Your task to perform on an android device: Find coffee shops on Maps Image 0: 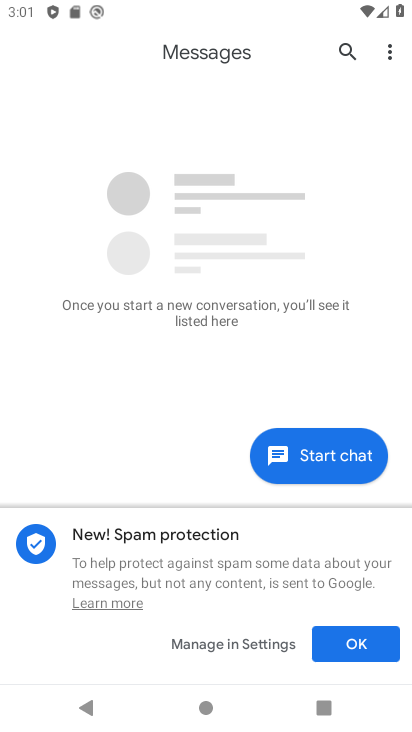
Step 0: press home button
Your task to perform on an android device: Find coffee shops on Maps Image 1: 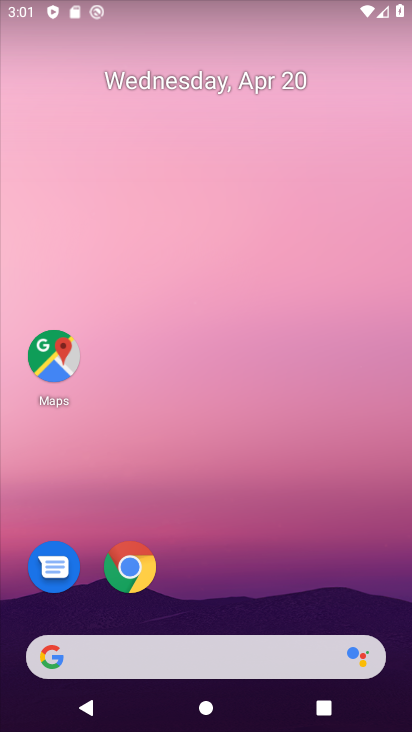
Step 1: click (42, 355)
Your task to perform on an android device: Find coffee shops on Maps Image 2: 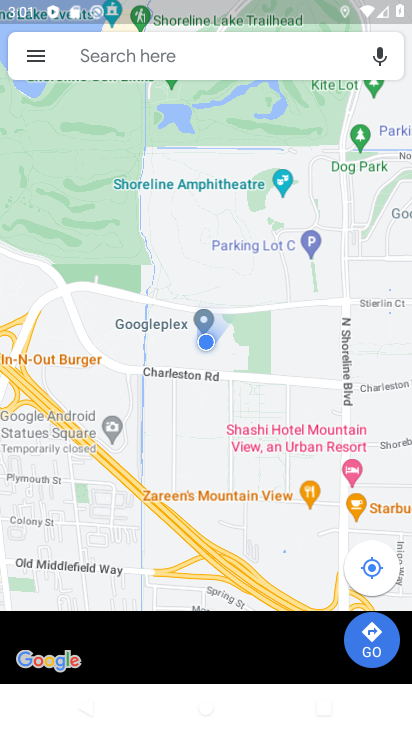
Step 2: click (203, 54)
Your task to perform on an android device: Find coffee shops on Maps Image 3: 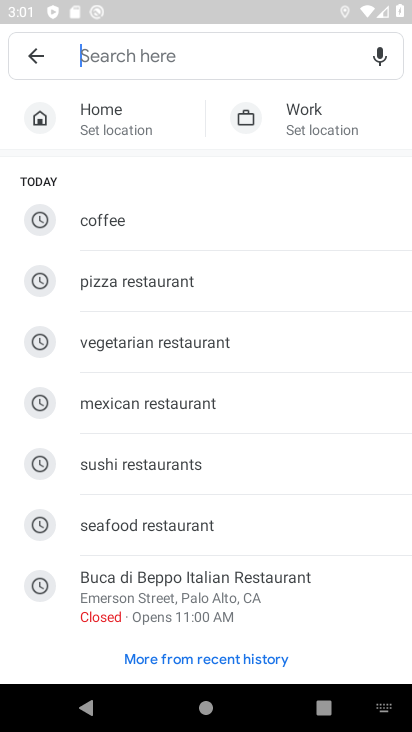
Step 3: type "coffee shops"
Your task to perform on an android device: Find coffee shops on Maps Image 4: 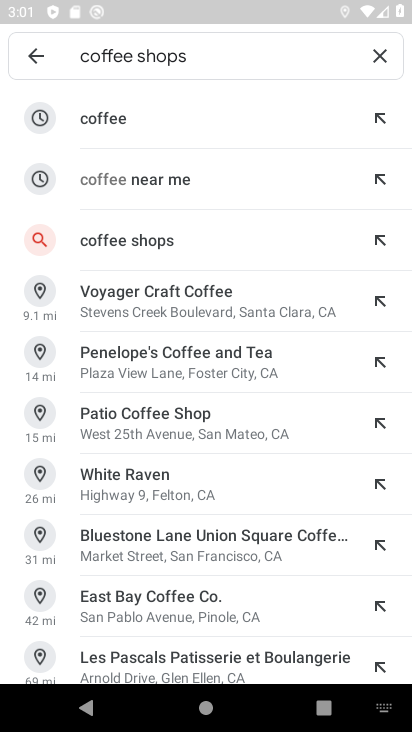
Step 4: click (192, 255)
Your task to perform on an android device: Find coffee shops on Maps Image 5: 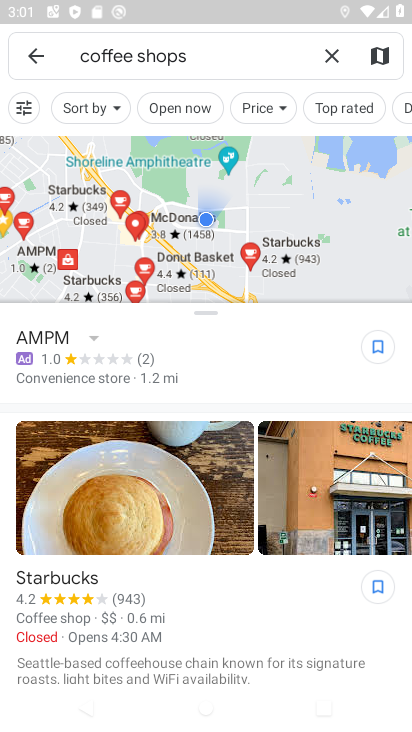
Step 5: task complete